Your task to perform on an android device: Open Google Chrome and click the shortcut for Amazon.com Image 0: 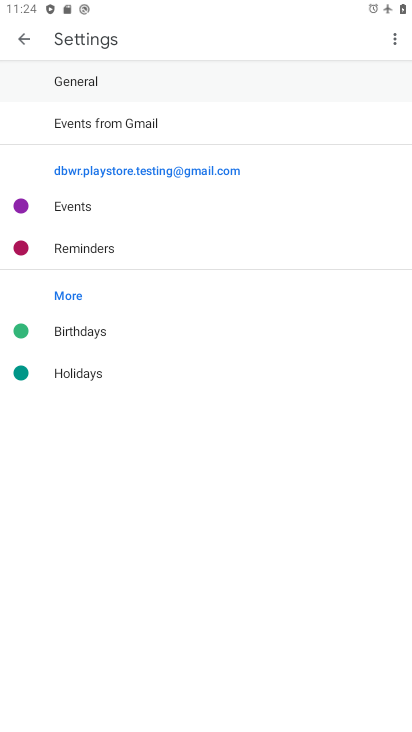
Step 0: press back button
Your task to perform on an android device: Open Google Chrome and click the shortcut for Amazon.com Image 1: 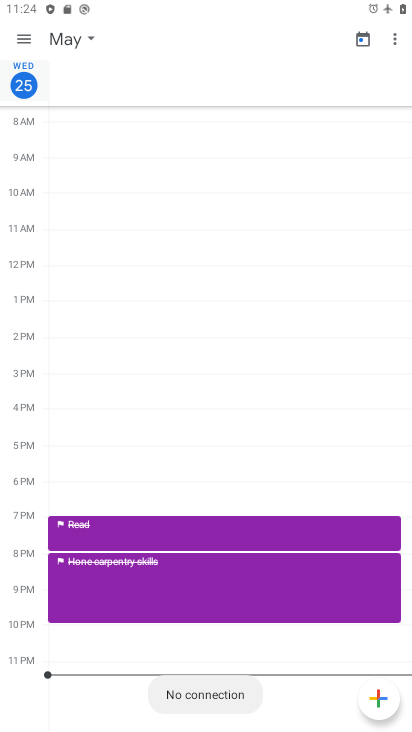
Step 1: press back button
Your task to perform on an android device: Open Google Chrome and click the shortcut for Amazon.com Image 2: 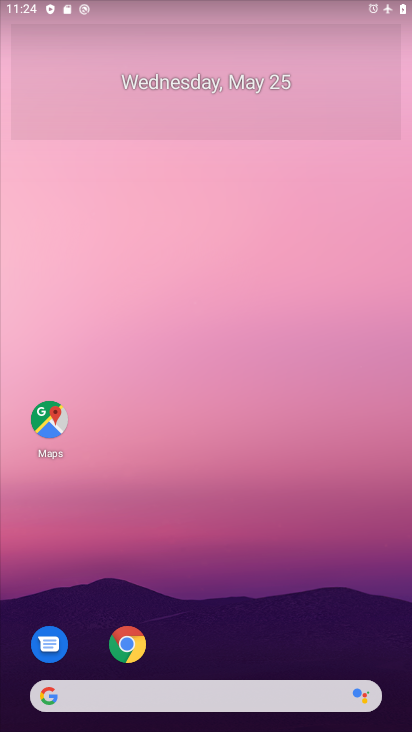
Step 2: click (49, 421)
Your task to perform on an android device: Open Google Chrome and click the shortcut for Amazon.com Image 3: 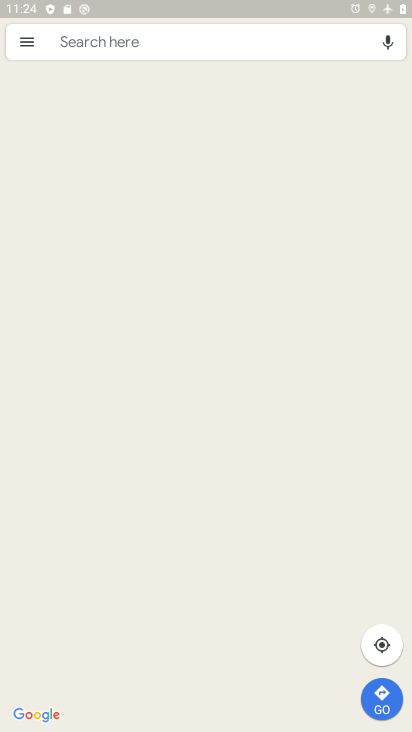
Step 3: press back button
Your task to perform on an android device: Open Google Chrome and click the shortcut for Amazon.com Image 4: 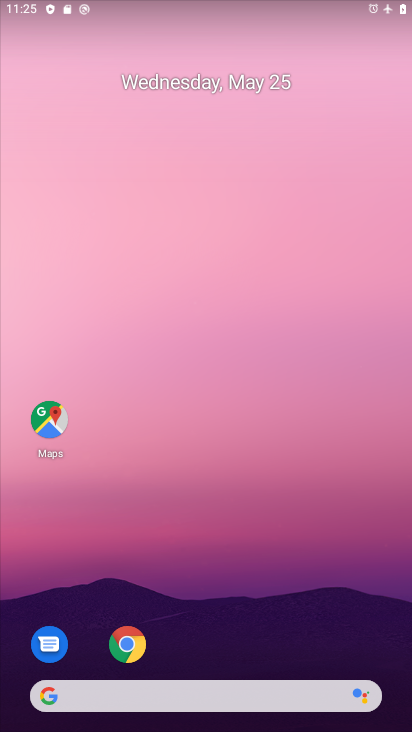
Step 4: click (127, 644)
Your task to perform on an android device: Open Google Chrome and click the shortcut for Amazon.com Image 5: 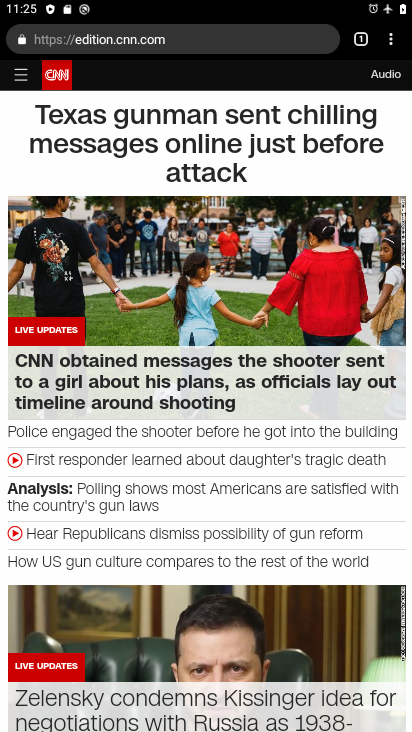
Step 5: click (231, 39)
Your task to perform on an android device: Open Google Chrome and click the shortcut for Amazon.com Image 6: 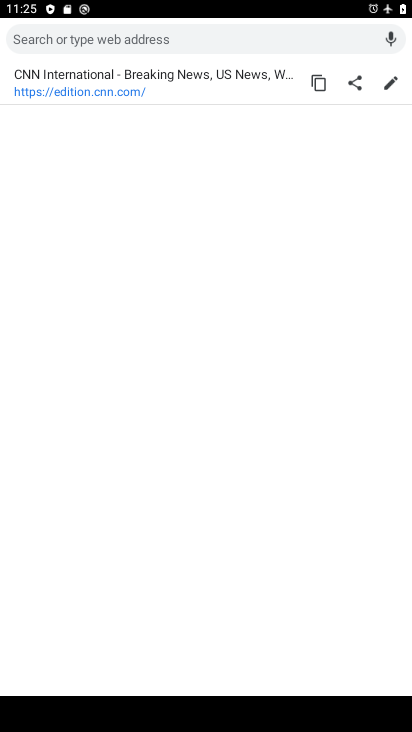
Step 6: type "Amazon.com"
Your task to perform on an android device: Open Google Chrome and click the shortcut for Amazon.com Image 7: 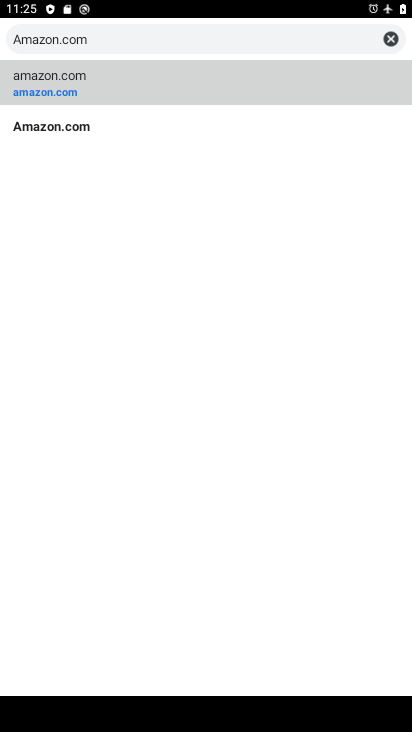
Step 7: click (60, 125)
Your task to perform on an android device: Open Google Chrome and click the shortcut for Amazon.com Image 8: 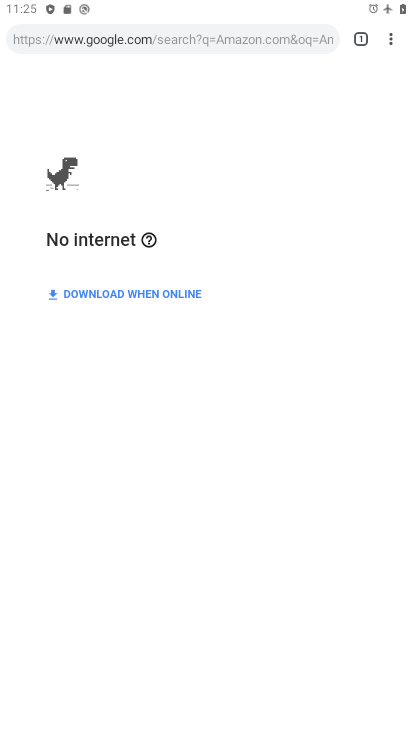
Step 8: task complete